Your task to perform on an android device: turn on airplane mode Image 0: 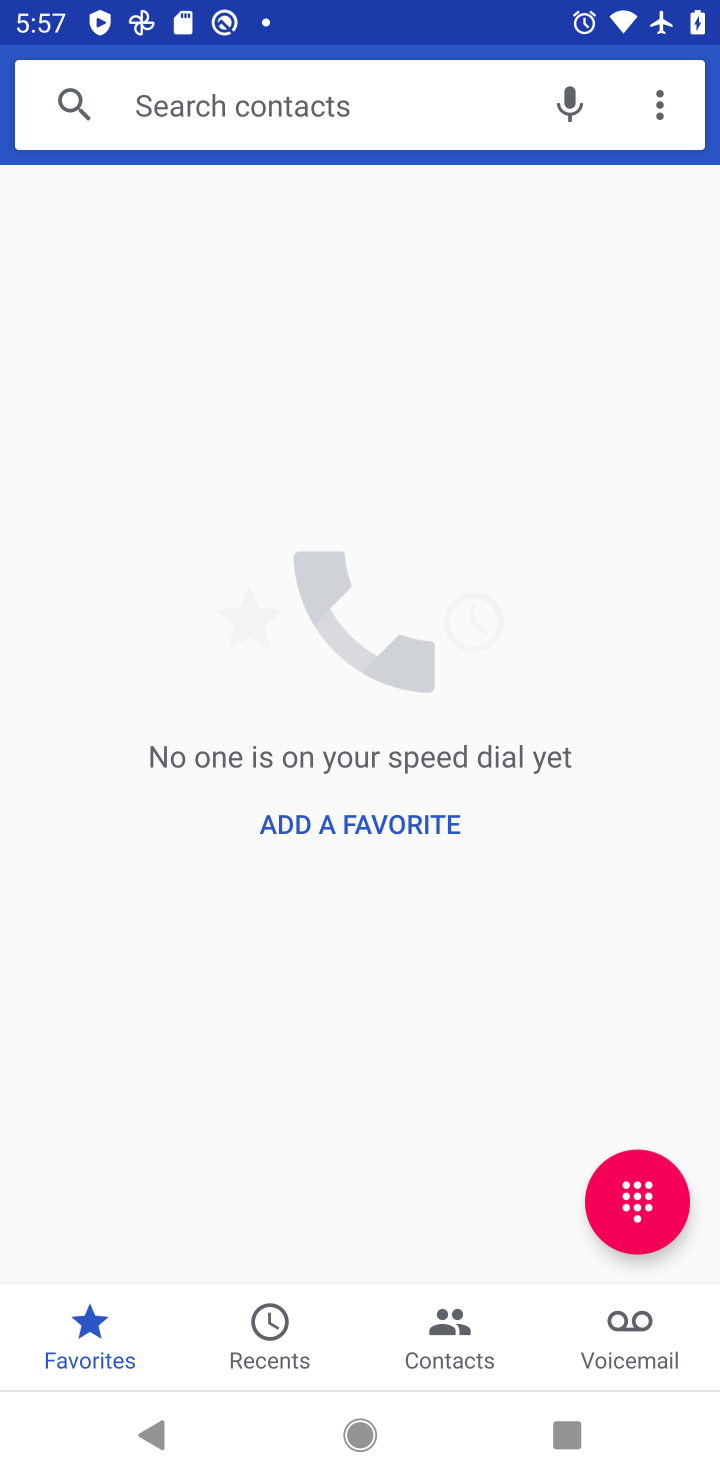
Step 0: press home button
Your task to perform on an android device: turn on airplane mode Image 1: 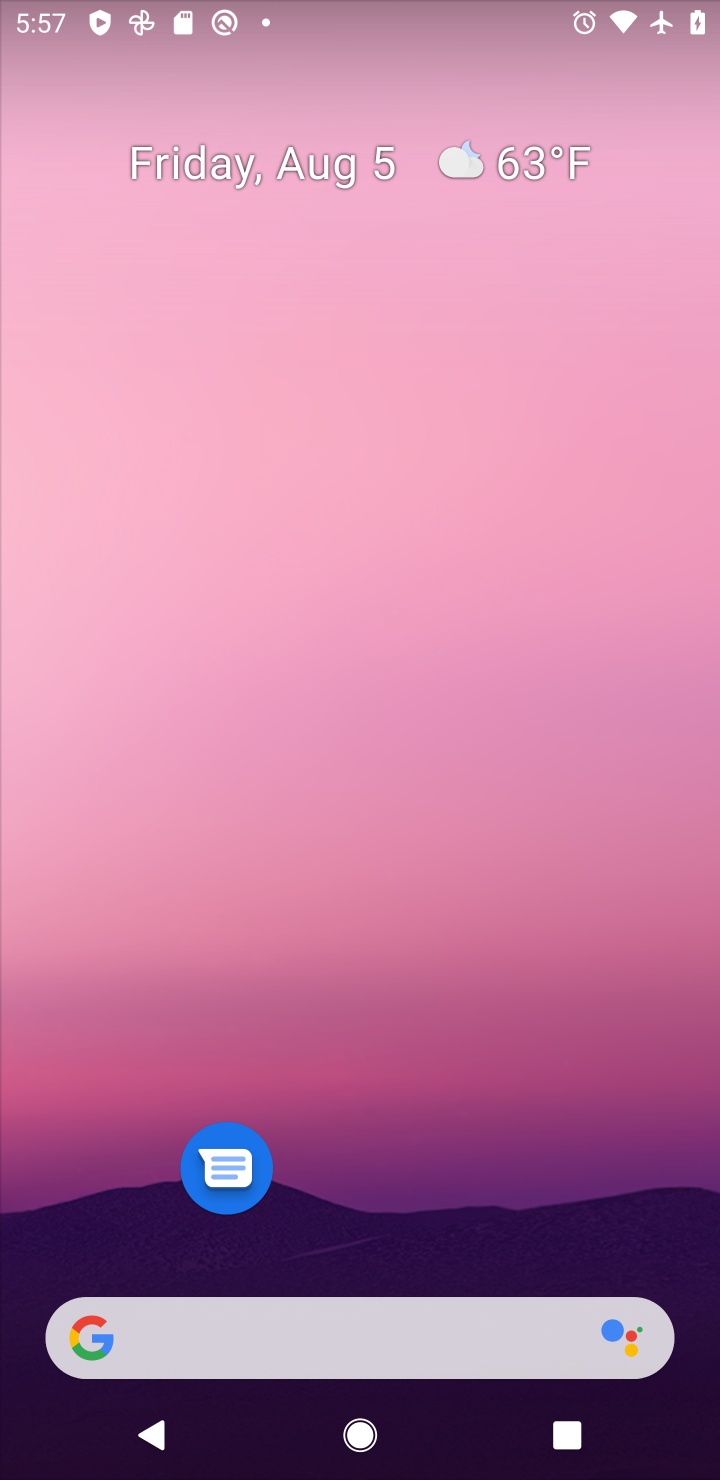
Step 1: task complete